Your task to perform on an android device: What's on my calendar today? Image 0: 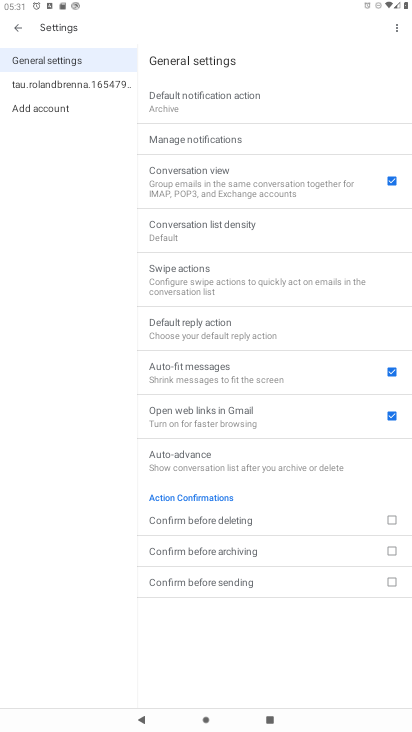
Step 0: press home button
Your task to perform on an android device: What's on my calendar today? Image 1: 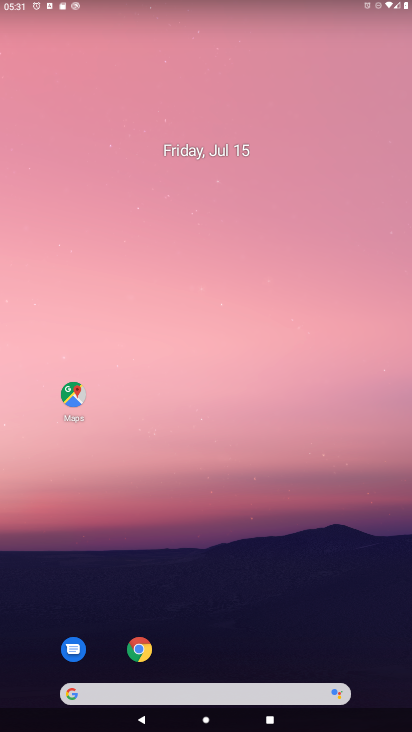
Step 1: drag from (387, 650) to (345, 37)
Your task to perform on an android device: What's on my calendar today? Image 2: 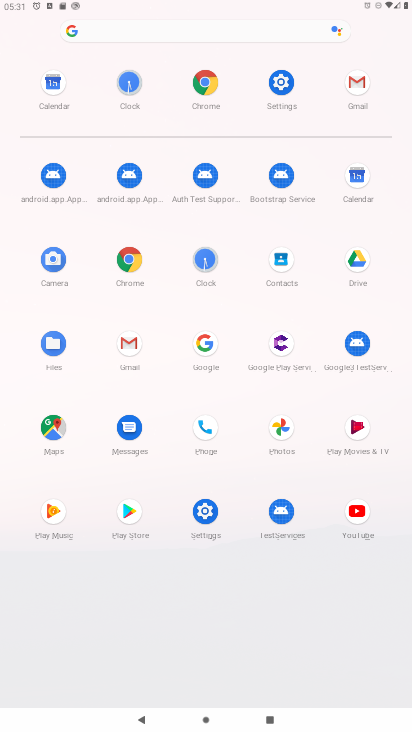
Step 2: click (358, 175)
Your task to perform on an android device: What's on my calendar today? Image 3: 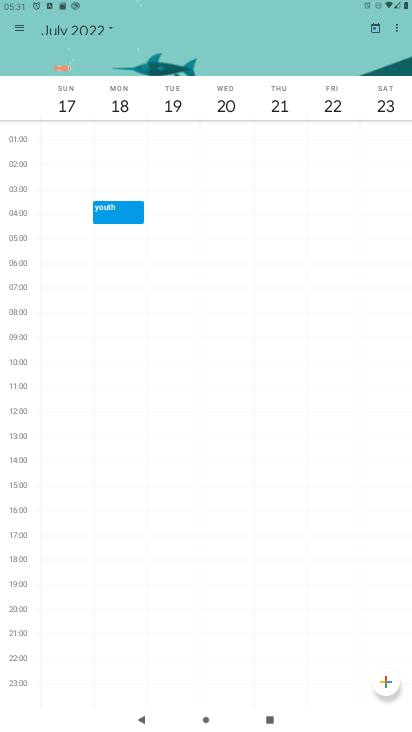
Step 3: click (18, 22)
Your task to perform on an android device: What's on my calendar today? Image 4: 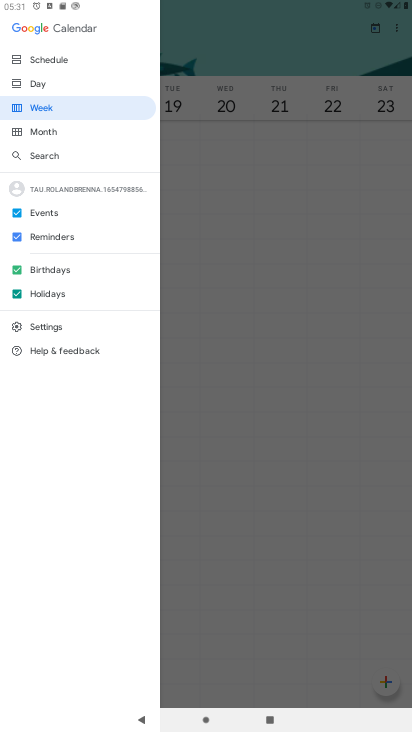
Step 4: click (35, 83)
Your task to perform on an android device: What's on my calendar today? Image 5: 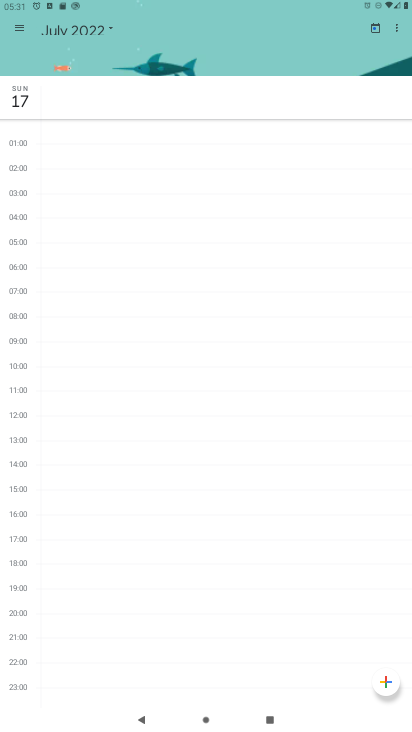
Step 5: click (109, 32)
Your task to perform on an android device: What's on my calendar today? Image 6: 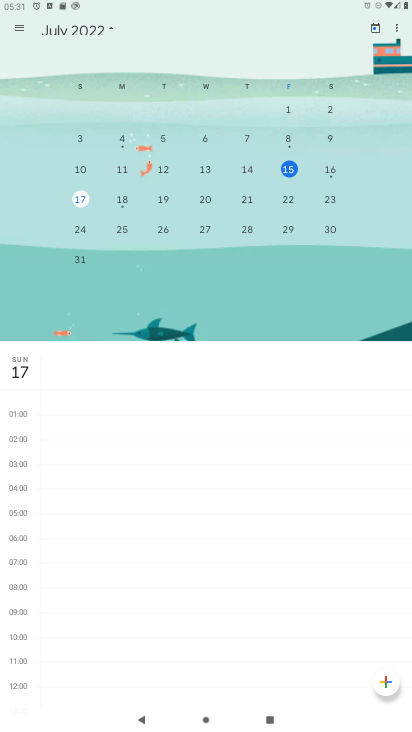
Step 6: click (286, 171)
Your task to perform on an android device: What's on my calendar today? Image 7: 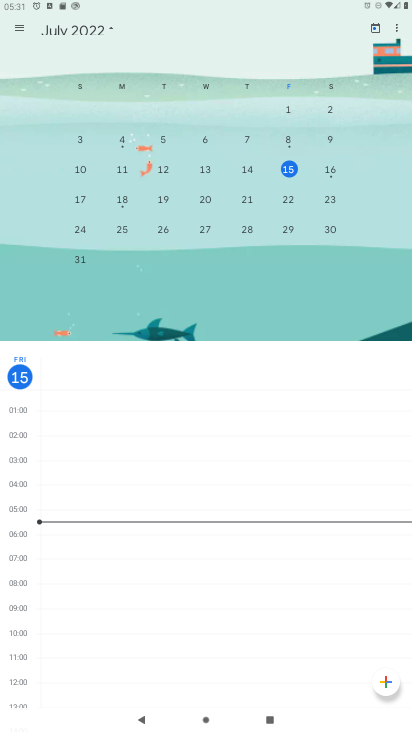
Step 7: task complete